Your task to perform on an android device: turn pop-ups on in chrome Image 0: 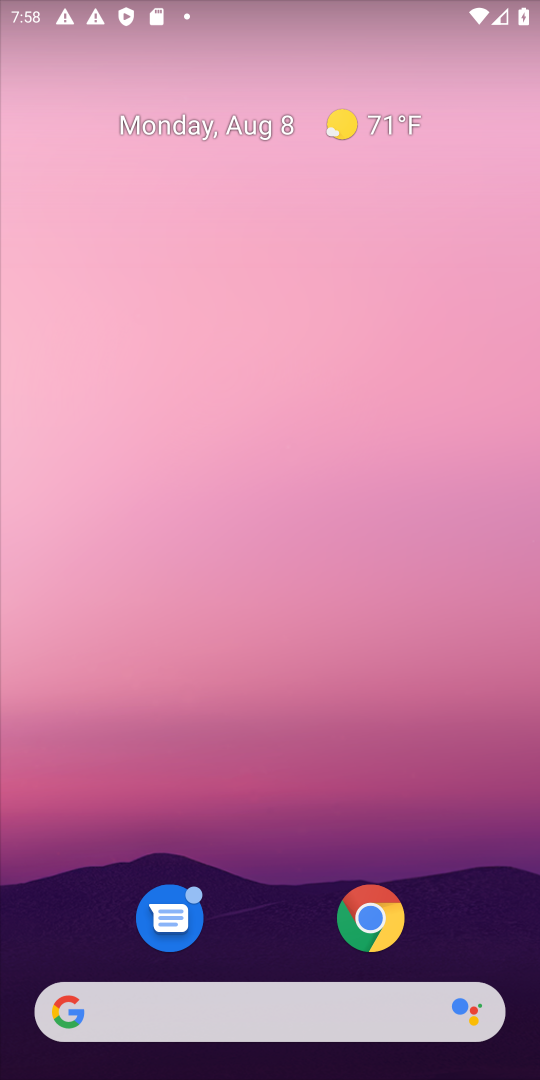
Step 0: click (376, 907)
Your task to perform on an android device: turn pop-ups on in chrome Image 1: 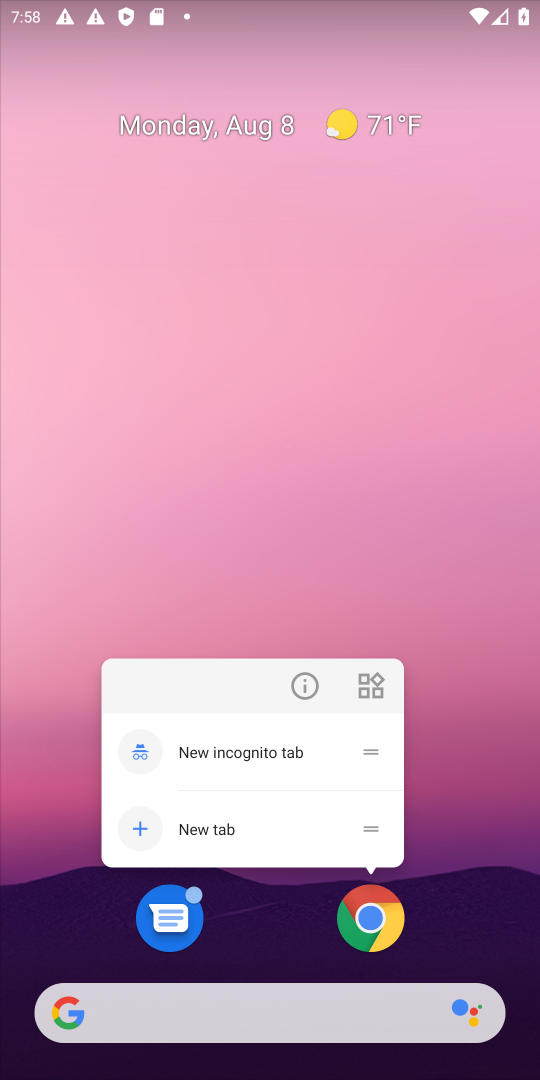
Step 1: click (376, 907)
Your task to perform on an android device: turn pop-ups on in chrome Image 2: 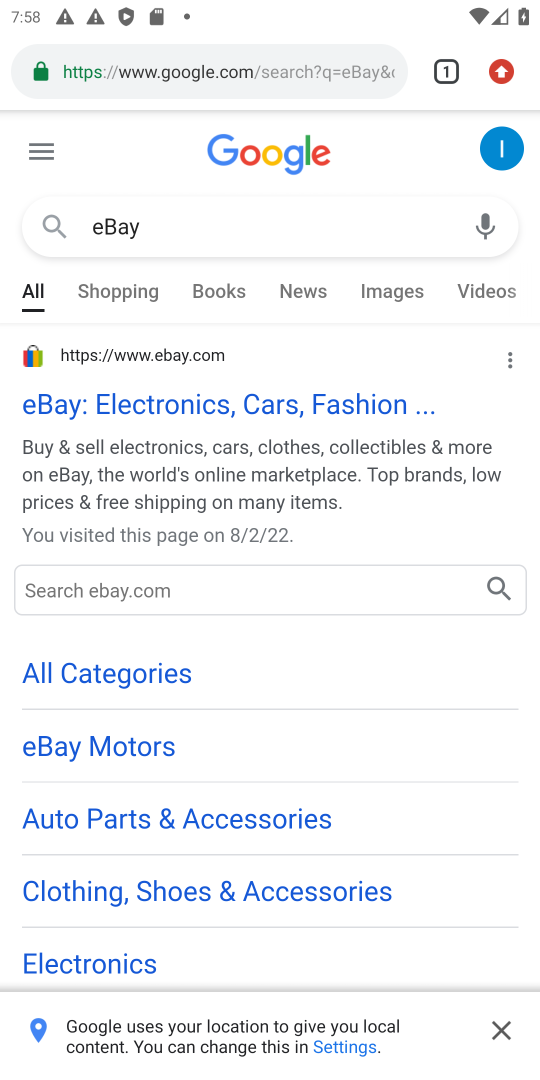
Step 2: click (497, 74)
Your task to perform on an android device: turn pop-ups on in chrome Image 3: 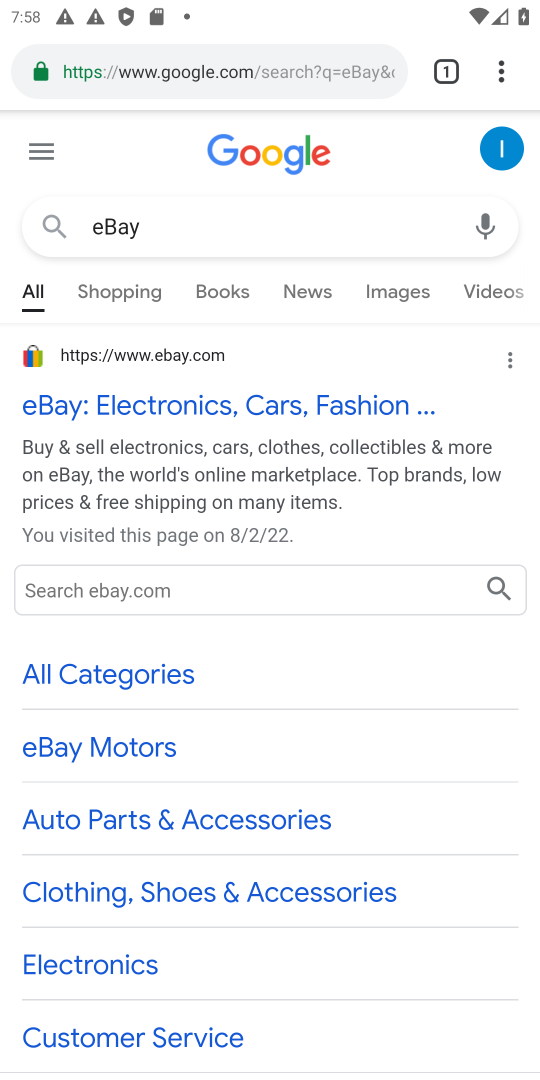
Step 3: click (497, 74)
Your task to perform on an android device: turn pop-ups on in chrome Image 4: 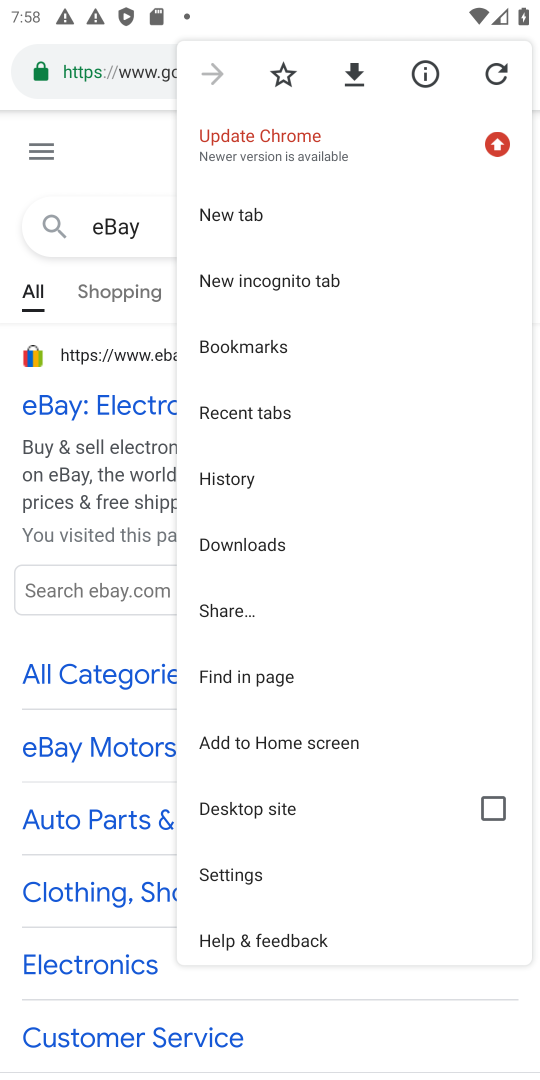
Step 4: click (242, 874)
Your task to perform on an android device: turn pop-ups on in chrome Image 5: 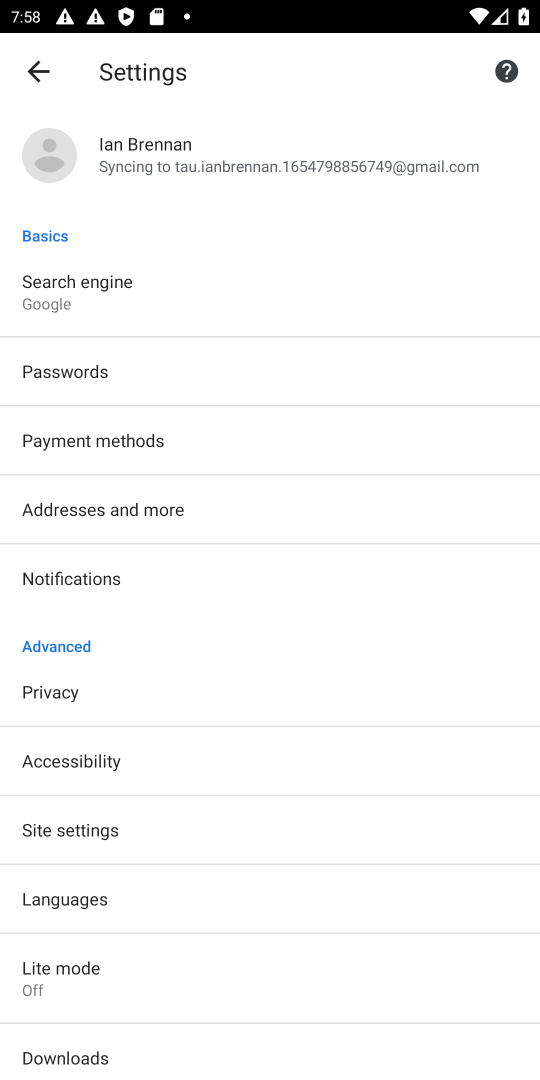
Step 5: click (183, 832)
Your task to perform on an android device: turn pop-ups on in chrome Image 6: 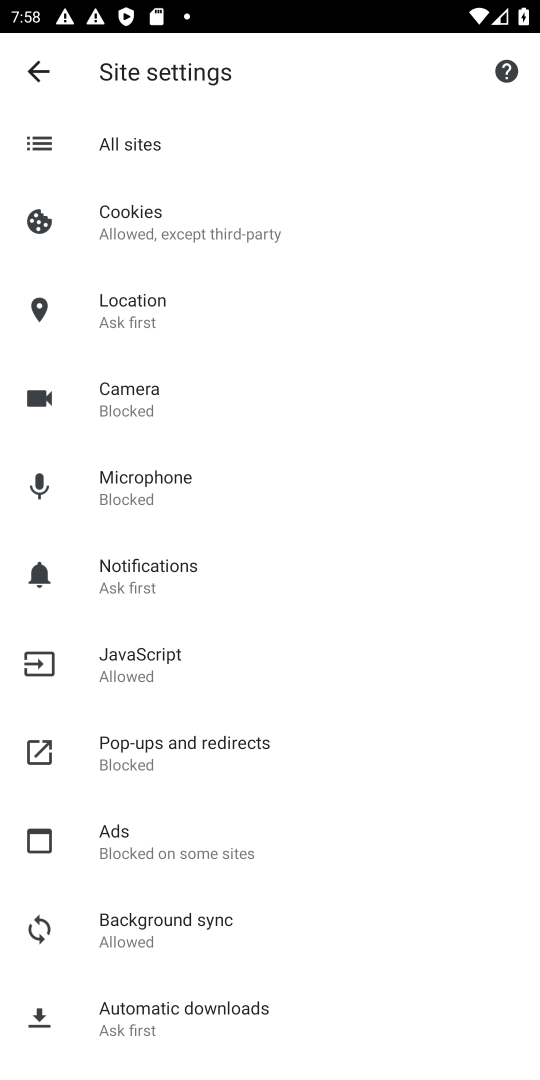
Step 6: click (179, 734)
Your task to perform on an android device: turn pop-ups on in chrome Image 7: 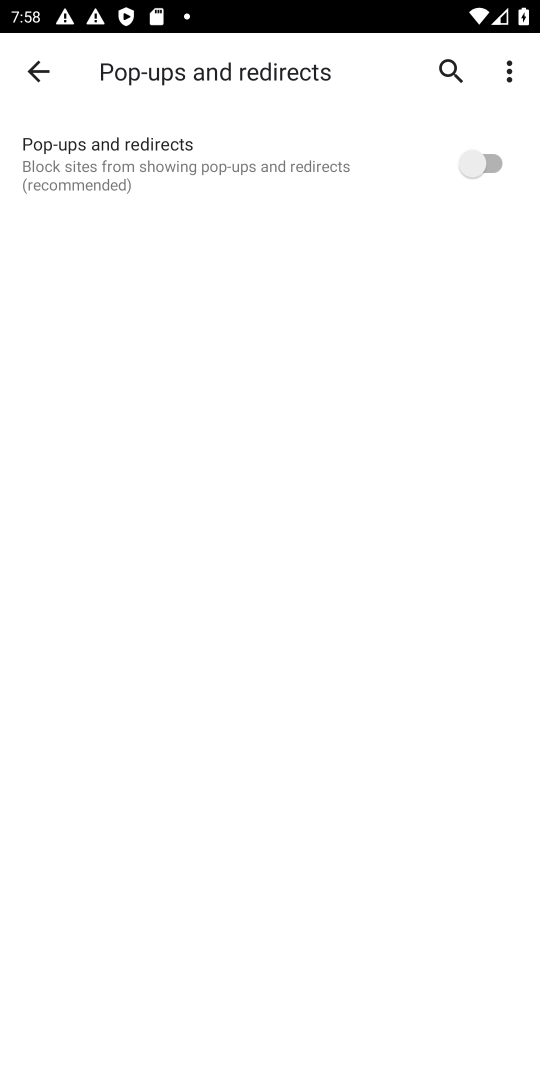
Step 7: click (493, 157)
Your task to perform on an android device: turn pop-ups on in chrome Image 8: 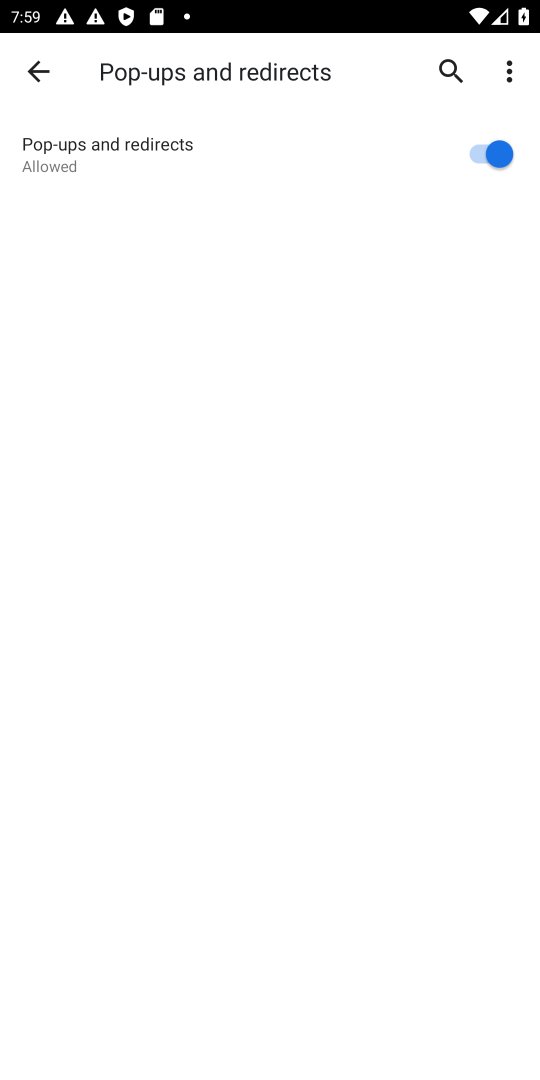
Step 8: task complete